Your task to perform on an android device: Go to Google maps Image 0: 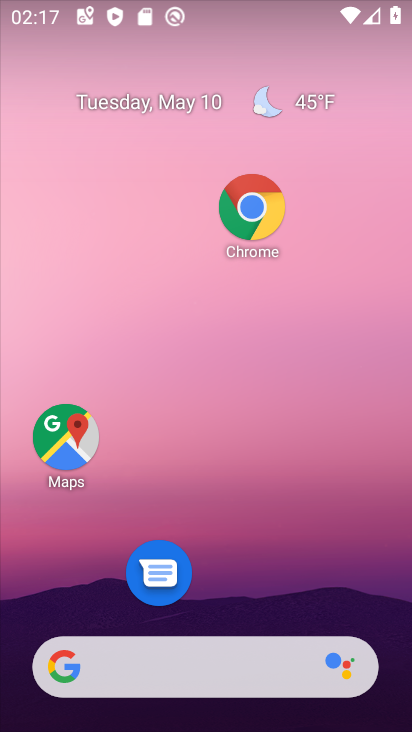
Step 0: click (74, 418)
Your task to perform on an android device: Go to Google maps Image 1: 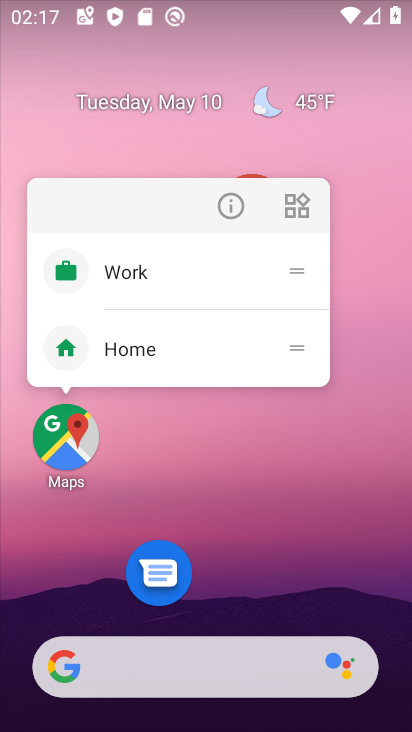
Step 1: click (71, 417)
Your task to perform on an android device: Go to Google maps Image 2: 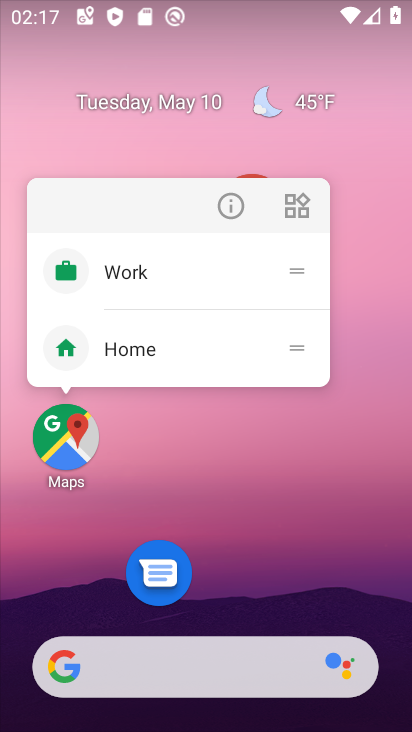
Step 2: click (70, 419)
Your task to perform on an android device: Go to Google maps Image 3: 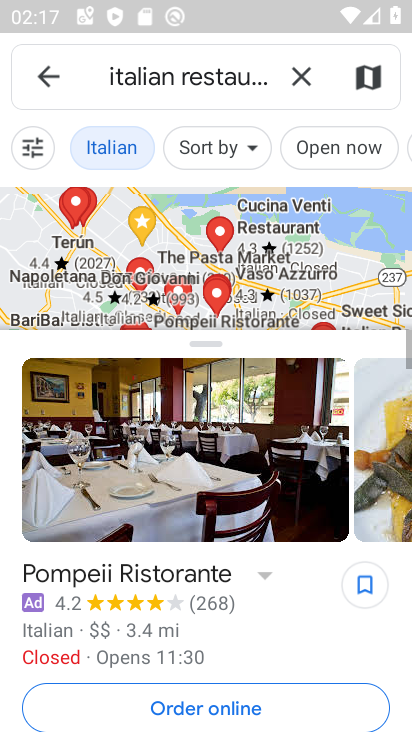
Step 3: click (38, 81)
Your task to perform on an android device: Go to Google maps Image 4: 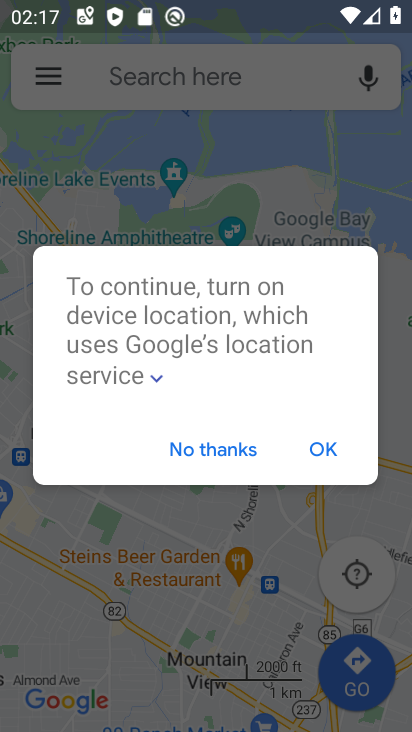
Step 4: click (243, 453)
Your task to perform on an android device: Go to Google maps Image 5: 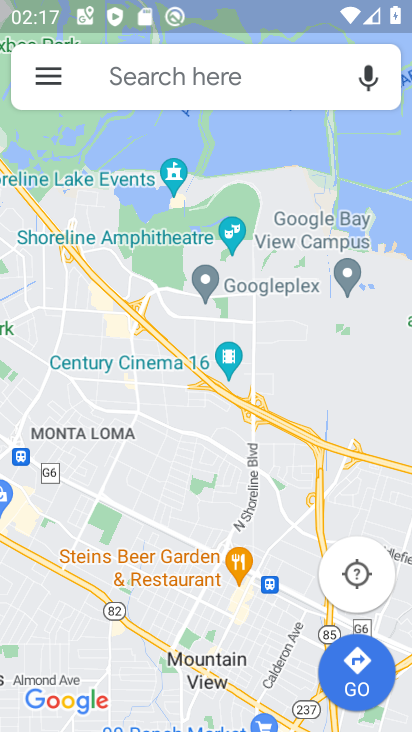
Step 5: task complete